Your task to perform on an android device: Go to Yahoo.com Image 0: 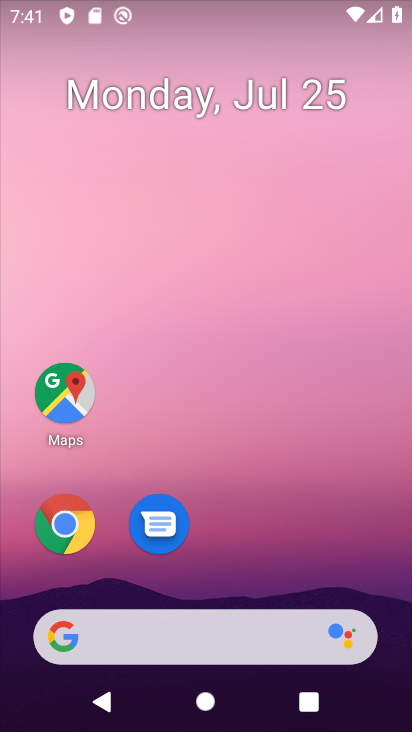
Step 0: click (221, 644)
Your task to perform on an android device: Go to Yahoo.com Image 1: 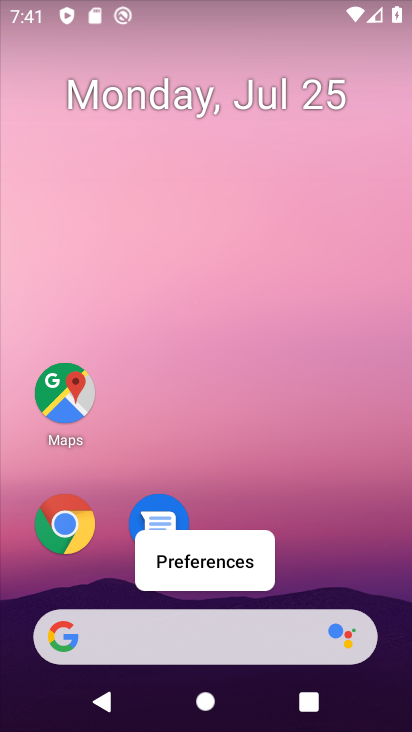
Step 1: click (145, 644)
Your task to perform on an android device: Go to Yahoo.com Image 2: 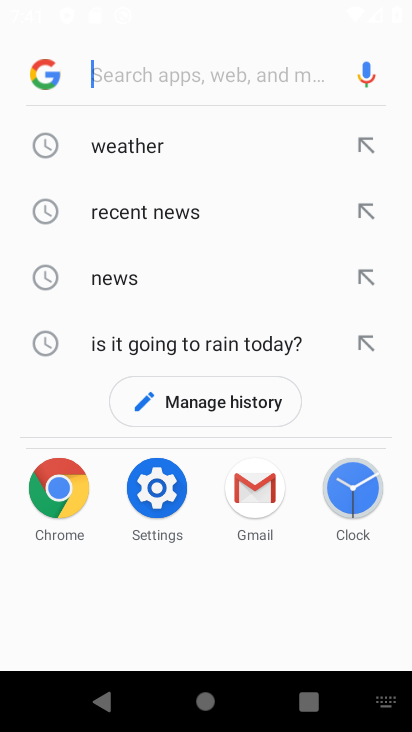
Step 2: type "yahoo.com"
Your task to perform on an android device: Go to Yahoo.com Image 3: 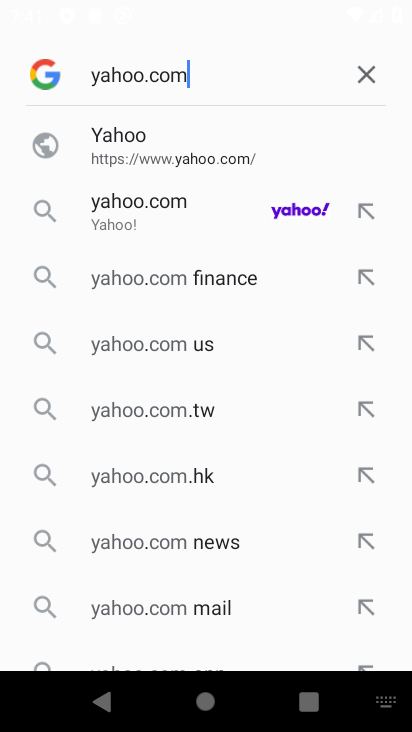
Step 3: click (312, 213)
Your task to perform on an android device: Go to Yahoo.com Image 4: 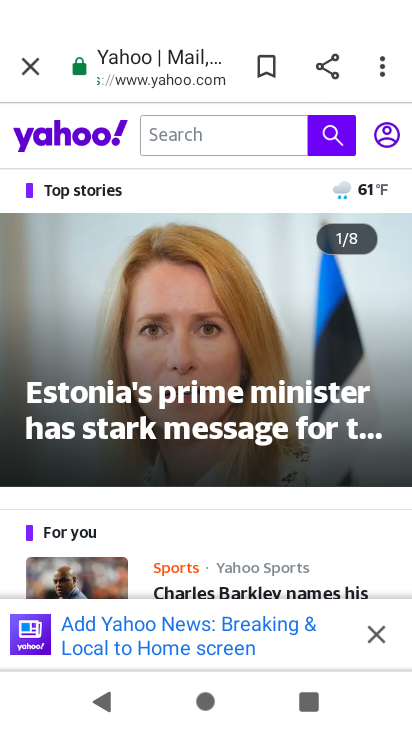
Step 4: task complete